Your task to perform on an android device: Is it going to rain today? Image 0: 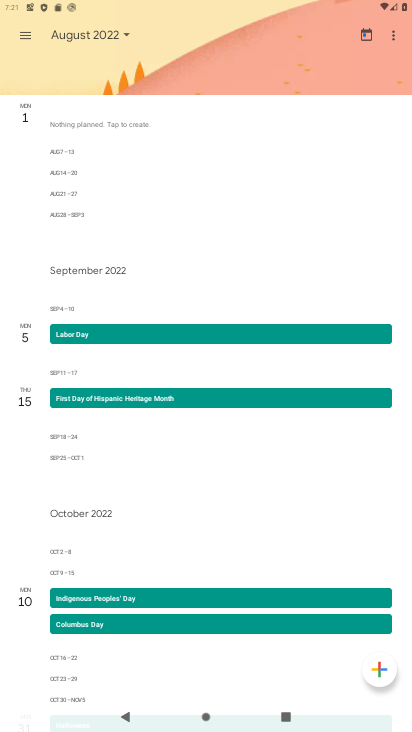
Step 0: press home button
Your task to perform on an android device: Is it going to rain today? Image 1: 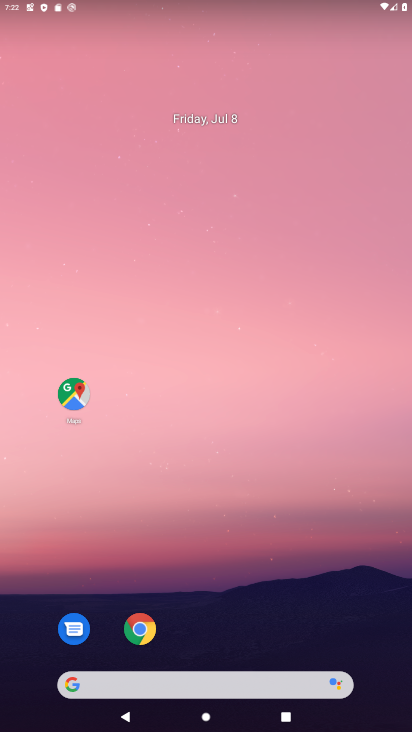
Step 1: click (156, 638)
Your task to perform on an android device: Is it going to rain today? Image 2: 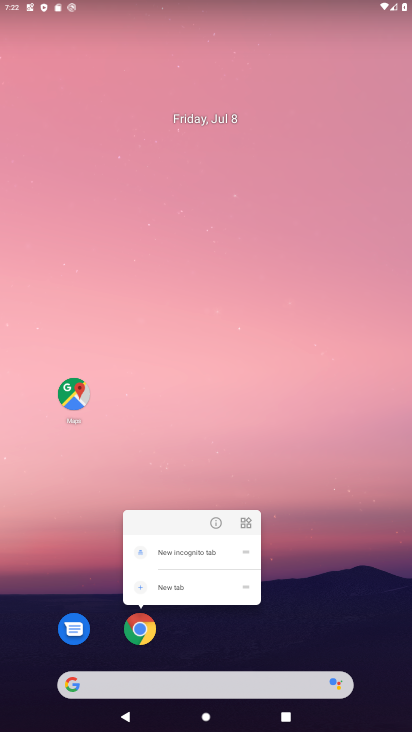
Step 2: click (148, 640)
Your task to perform on an android device: Is it going to rain today? Image 3: 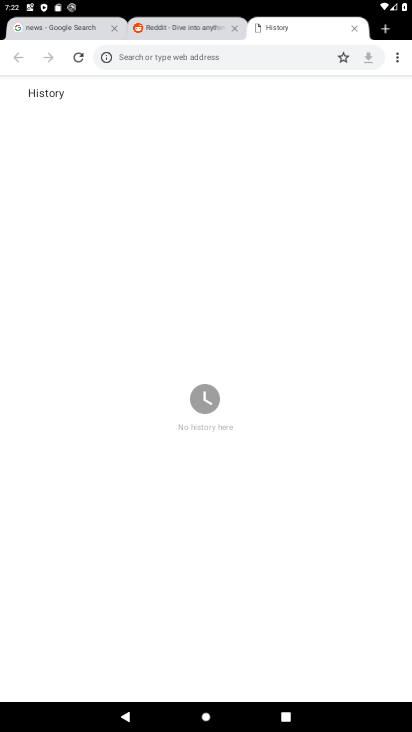
Step 3: click (246, 56)
Your task to perform on an android device: Is it going to rain today? Image 4: 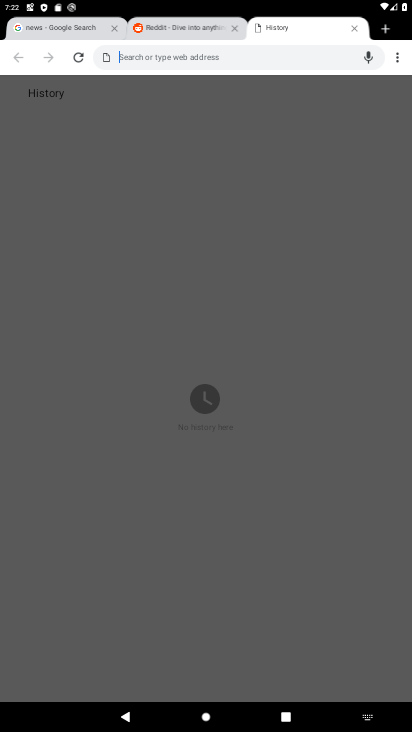
Step 4: type "Is it going to rain today?"
Your task to perform on an android device: Is it going to rain today? Image 5: 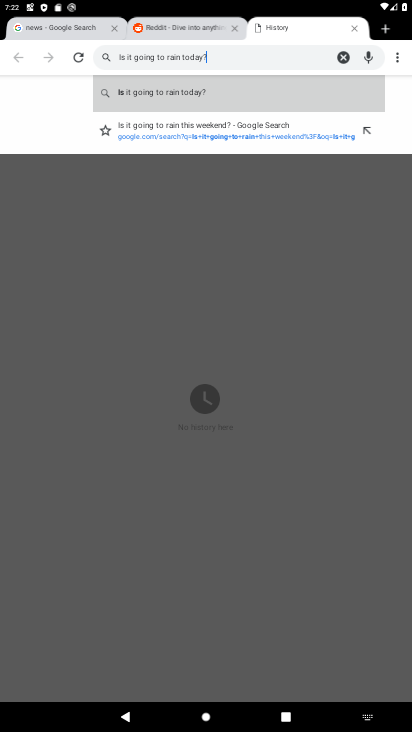
Step 5: type ""
Your task to perform on an android device: Is it going to rain today? Image 6: 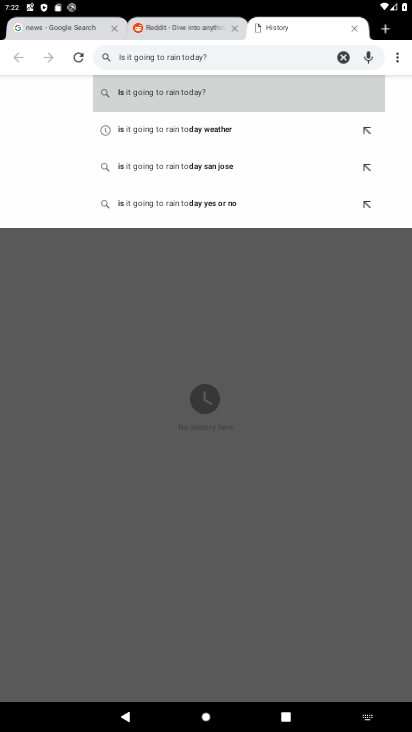
Step 6: click (188, 103)
Your task to perform on an android device: Is it going to rain today? Image 7: 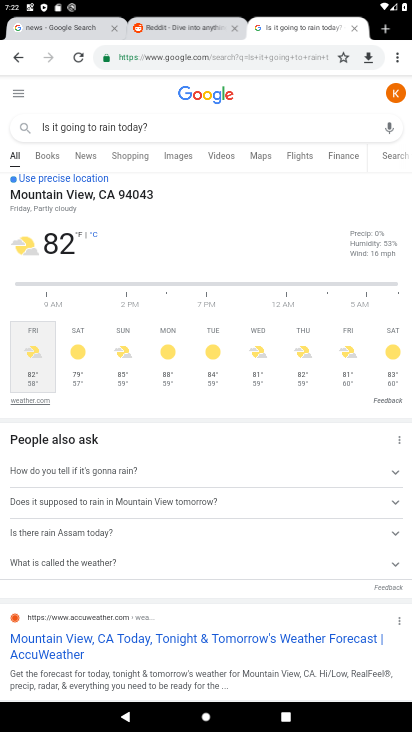
Step 7: task complete